Your task to perform on an android device: What's the weather? Image 0: 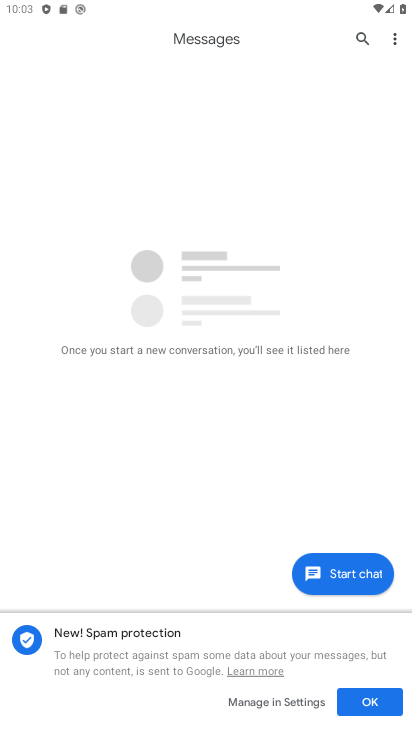
Step 0: press home button
Your task to perform on an android device: What's the weather? Image 1: 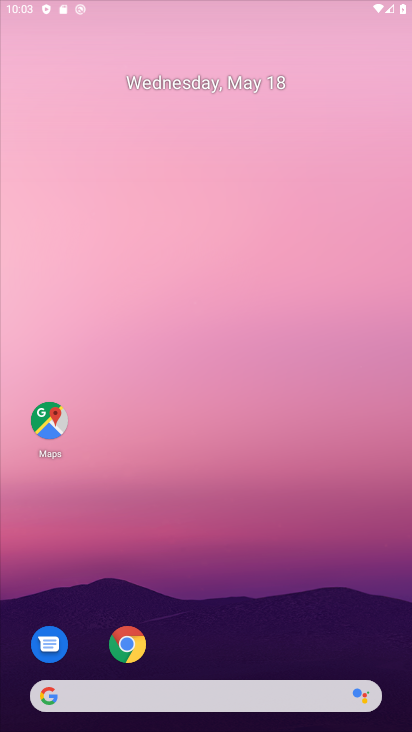
Step 1: drag from (330, 256) to (296, 38)
Your task to perform on an android device: What's the weather? Image 2: 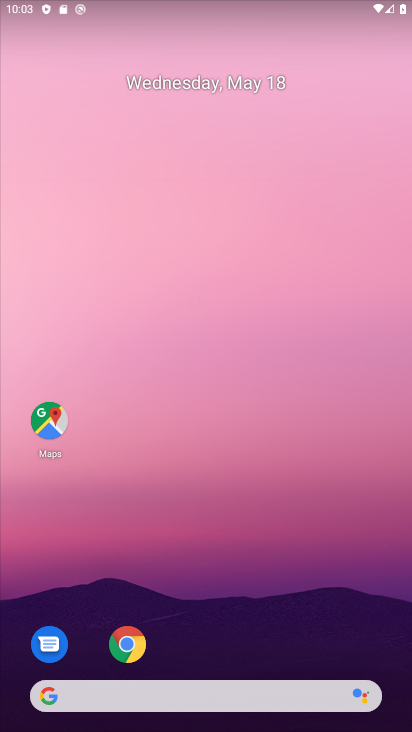
Step 2: drag from (347, 622) to (281, 44)
Your task to perform on an android device: What's the weather? Image 3: 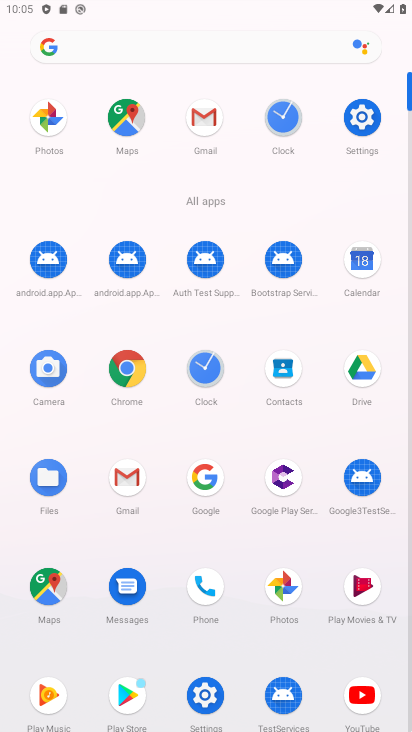
Step 3: click (218, 479)
Your task to perform on an android device: What's the weather? Image 4: 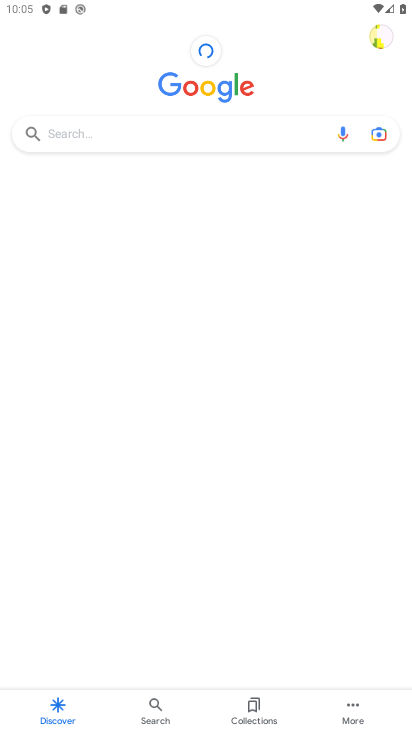
Step 4: click (171, 135)
Your task to perform on an android device: What's the weather? Image 5: 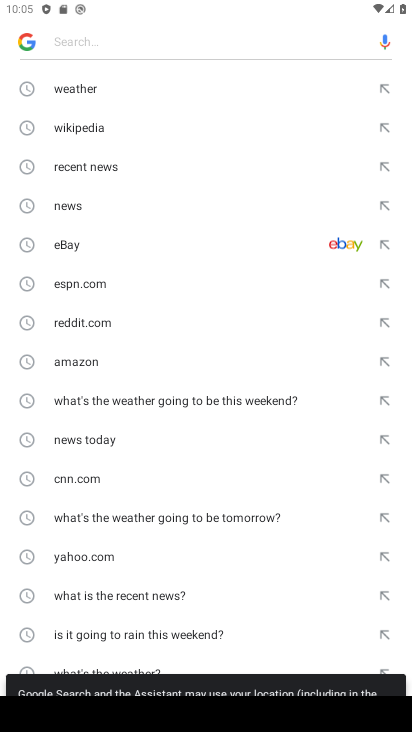
Step 5: click (137, 85)
Your task to perform on an android device: What's the weather? Image 6: 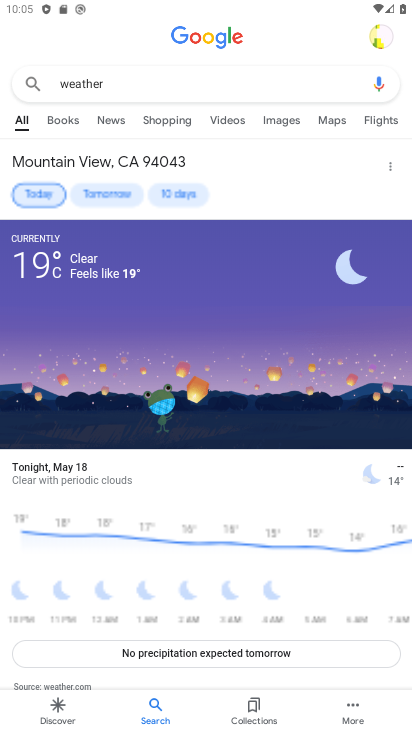
Step 6: task complete